Your task to perform on an android device: delete a single message in the gmail app Image 0: 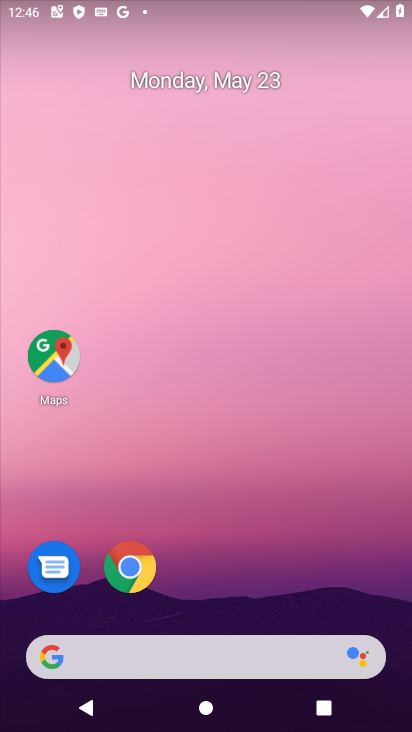
Step 0: drag from (250, 607) to (204, 58)
Your task to perform on an android device: delete a single message in the gmail app Image 1: 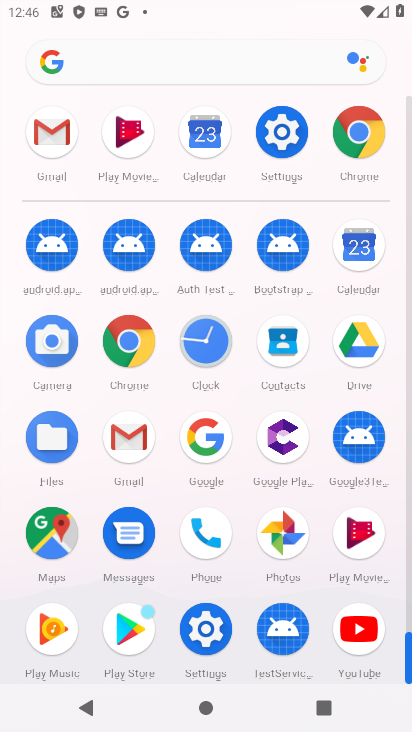
Step 1: click (146, 457)
Your task to perform on an android device: delete a single message in the gmail app Image 2: 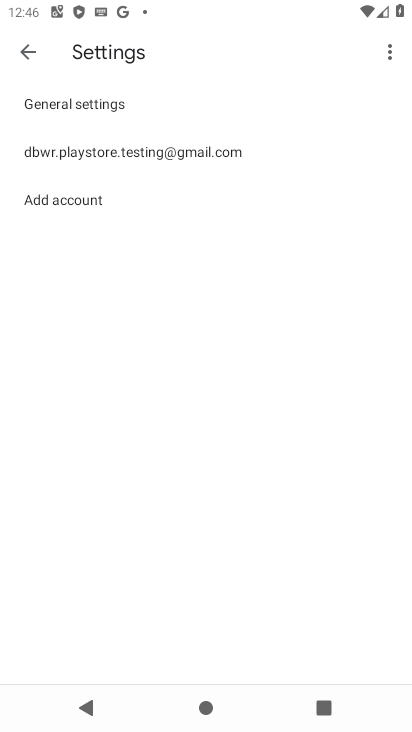
Step 2: click (32, 50)
Your task to perform on an android device: delete a single message in the gmail app Image 3: 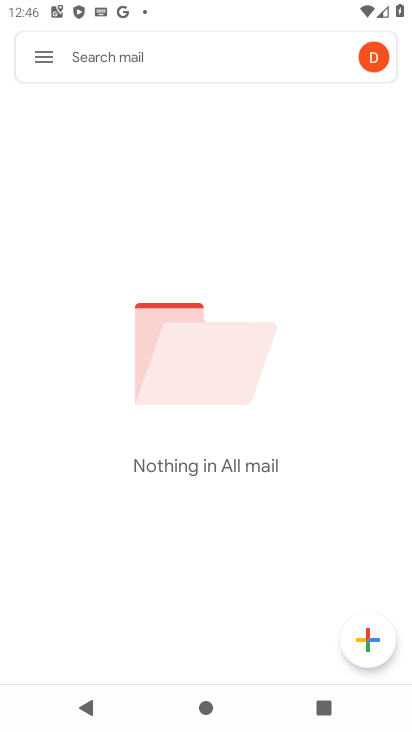
Step 3: task complete